Your task to perform on an android device: toggle translation in the chrome app Image 0: 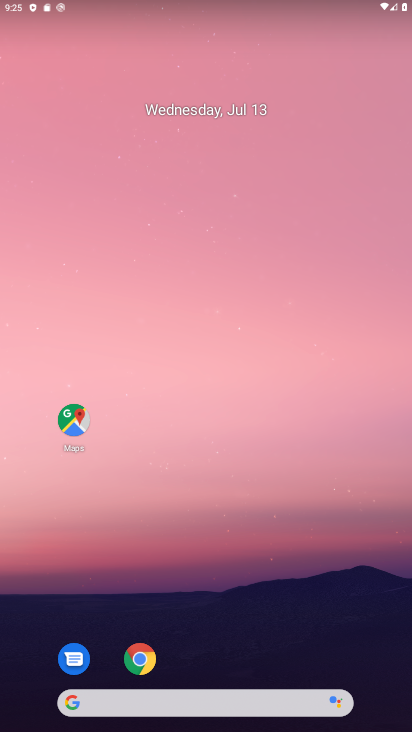
Step 0: click (139, 666)
Your task to perform on an android device: toggle translation in the chrome app Image 1: 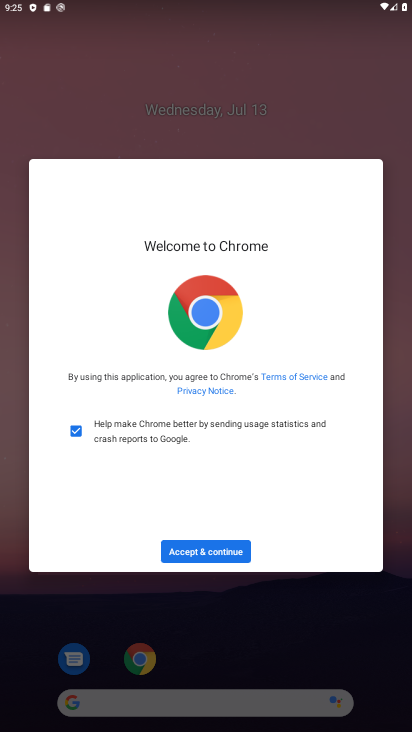
Step 1: click (191, 556)
Your task to perform on an android device: toggle translation in the chrome app Image 2: 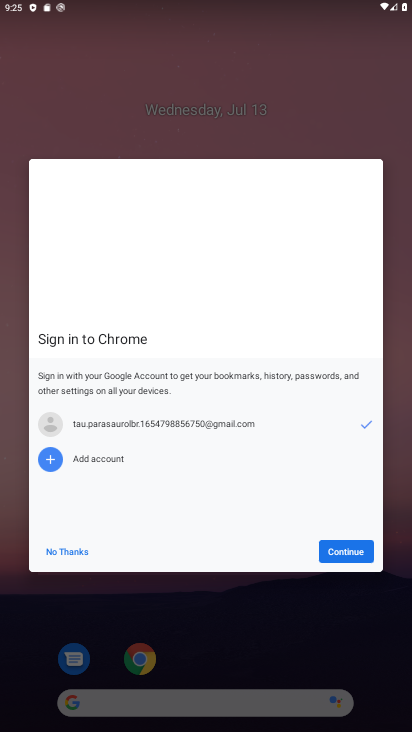
Step 2: click (340, 547)
Your task to perform on an android device: toggle translation in the chrome app Image 3: 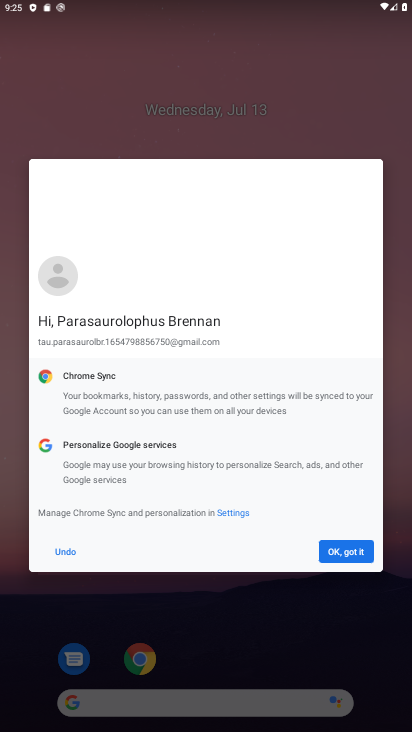
Step 3: click (340, 547)
Your task to perform on an android device: toggle translation in the chrome app Image 4: 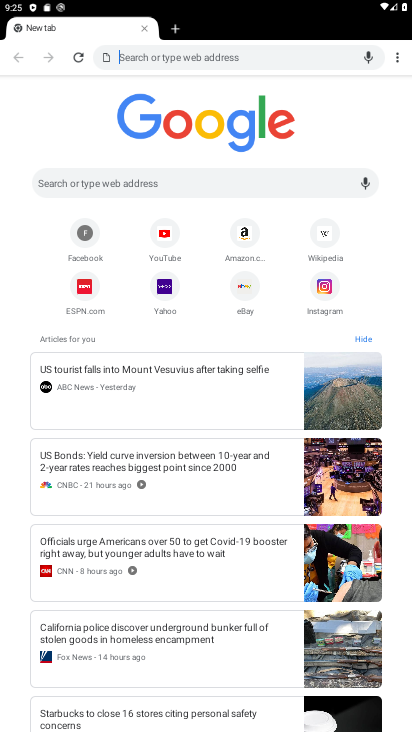
Step 4: click (396, 51)
Your task to perform on an android device: toggle translation in the chrome app Image 5: 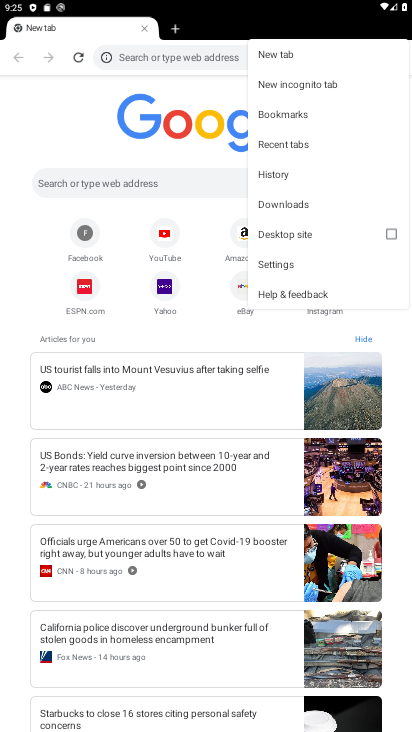
Step 5: click (275, 263)
Your task to perform on an android device: toggle translation in the chrome app Image 6: 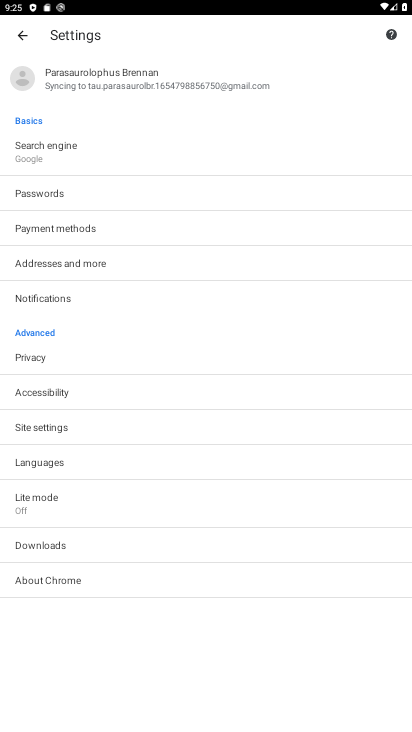
Step 6: click (42, 459)
Your task to perform on an android device: toggle translation in the chrome app Image 7: 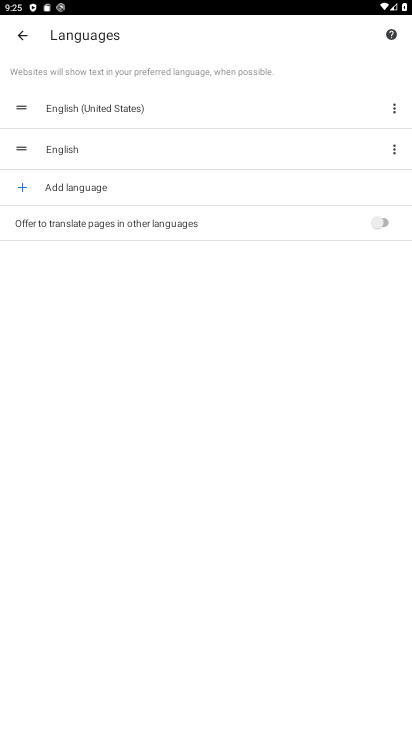
Step 7: click (373, 224)
Your task to perform on an android device: toggle translation in the chrome app Image 8: 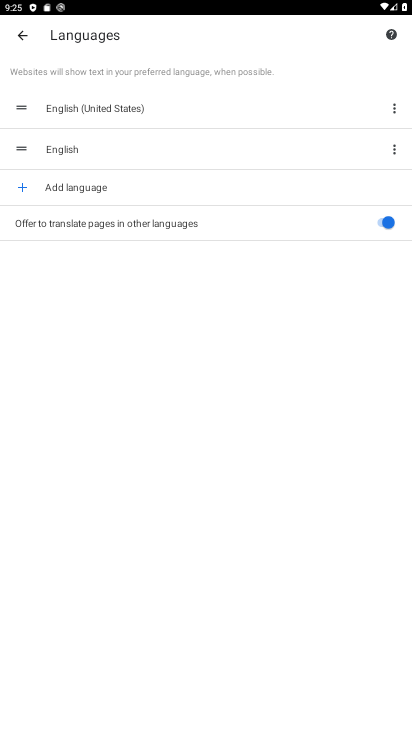
Step 8: task complete